Your task to perform on an android device: search for starred emails in the gmail app Image 0: 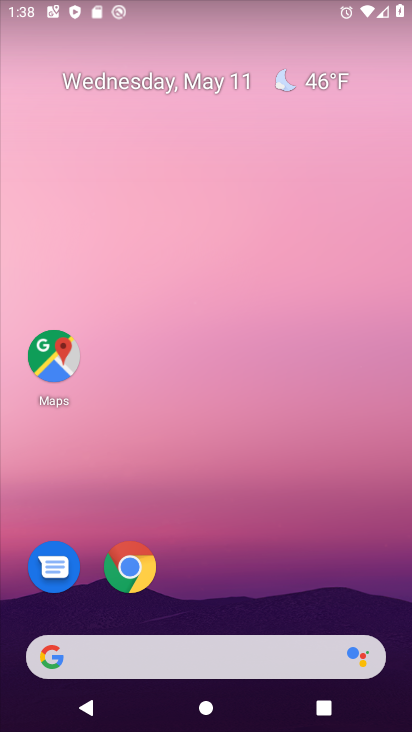
Step 0: drag from (222, 618) to (131, 90)
Your task to perform on an android device: search for starred emails in the gmail app Image 1: 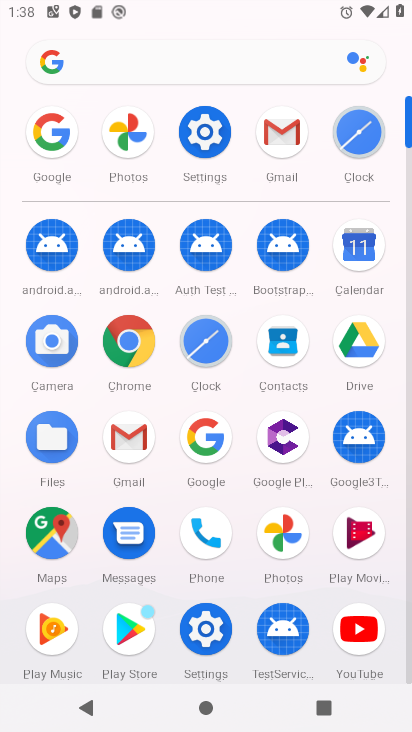
Step 1: click (123, 439)
Your task to perform on an android device: search for starred emails in the gmail app Image 2: 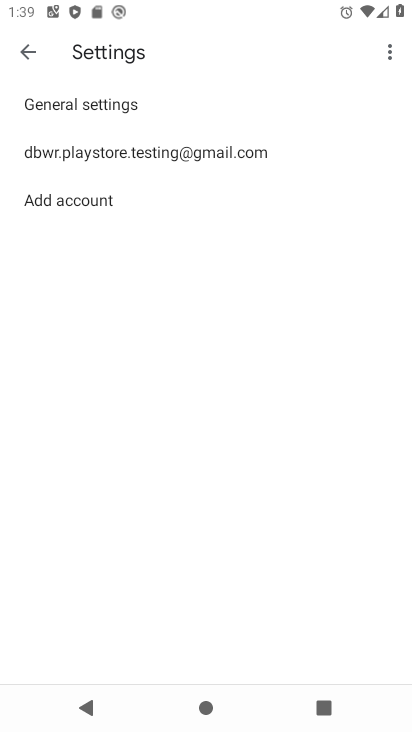
Step 2: click (20, 61)
Your task to perform on an android device: search for starred emails in the gmail app Image 3: 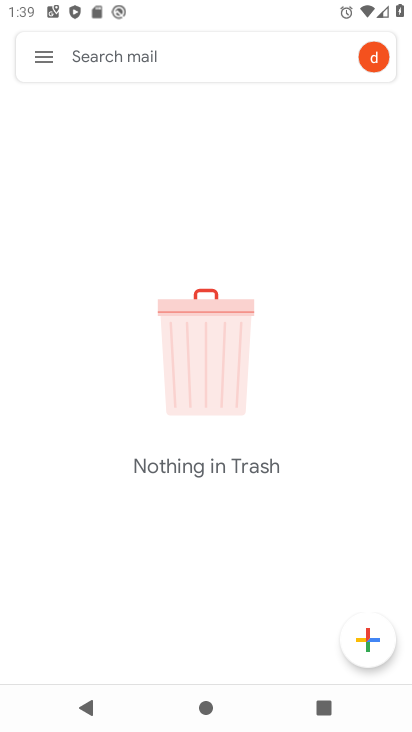
Step 3: click (40, 49)
Your task to perform on an android device: search for starred emails in the gmail app Image 4: 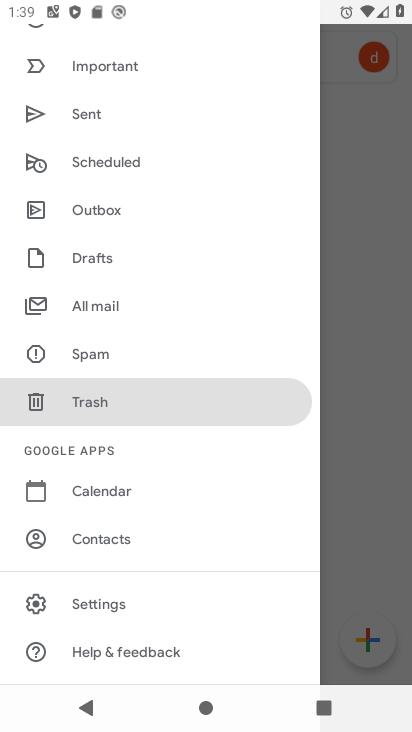
Step 4: drag from (89, 80) to (146, 454)
Your task to perform on an android device: search for starred emails in the gmail app Image 5: 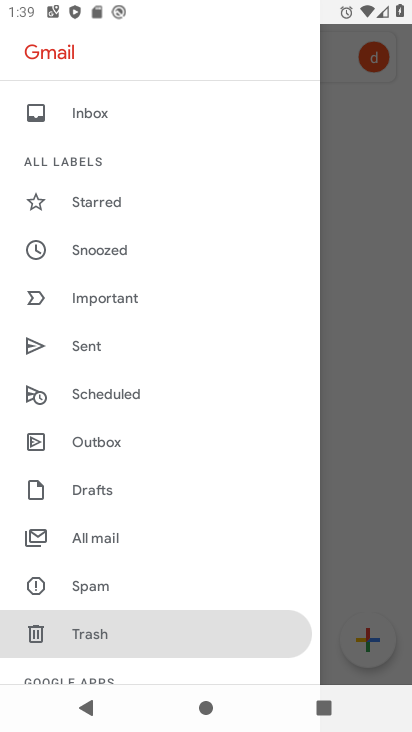
Step 5: click (89, 201)
Your task to perform on an android device: search for starred emails in the gmail app Image 6: 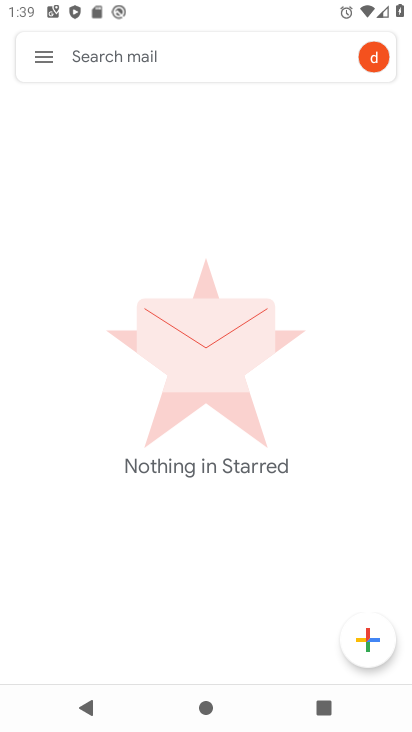
Step 6: task complete